Your task to perform on an android device: turn notification dots off Image 0: 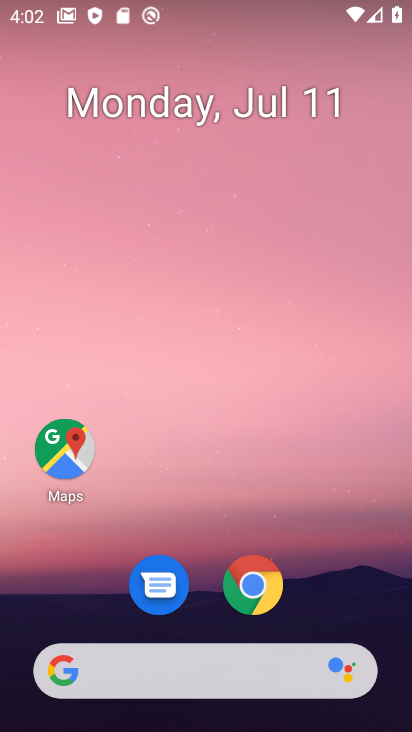
Step 0: drag from (209, 514) to (300, 43)
Your task to perform on an android device: turn notification dots off Image 1: 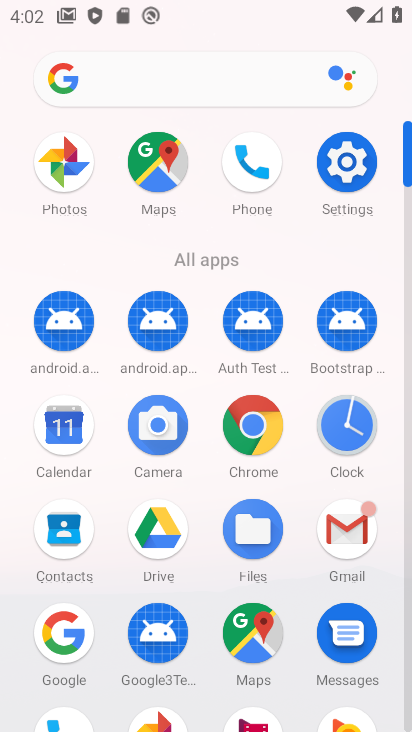
Step 1: click (349, 161)
Your task to perform on an android device: turn notification dots off Image 2: 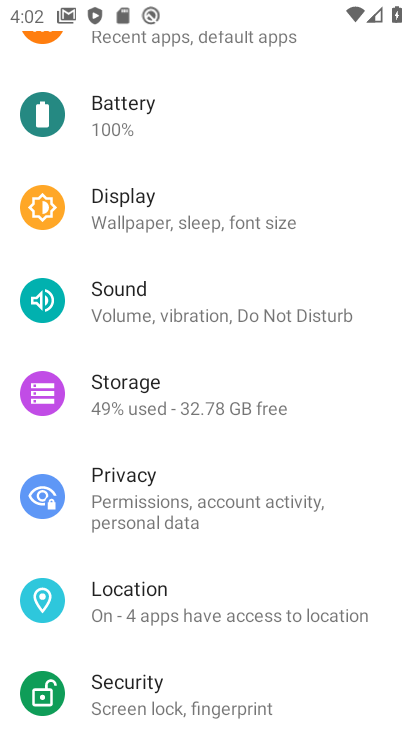
Step 2: drag from (226, 254) to (210, 539)
Your task to perform on an android device: turn notification dots off Image 3: 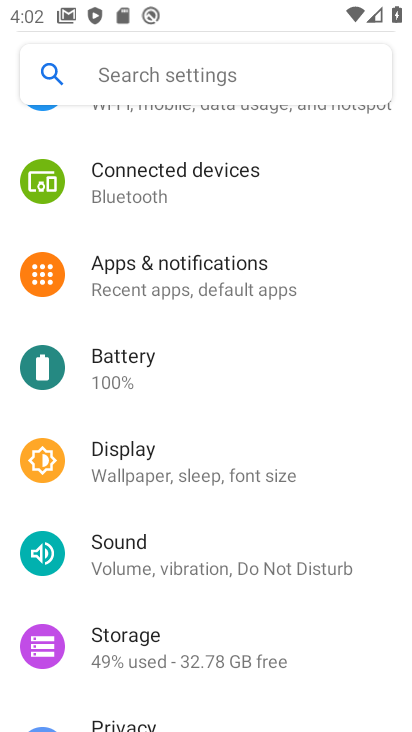
Step 3: click (233, 286)
Your task to perform on an android device: turn notification dots off Image 4: 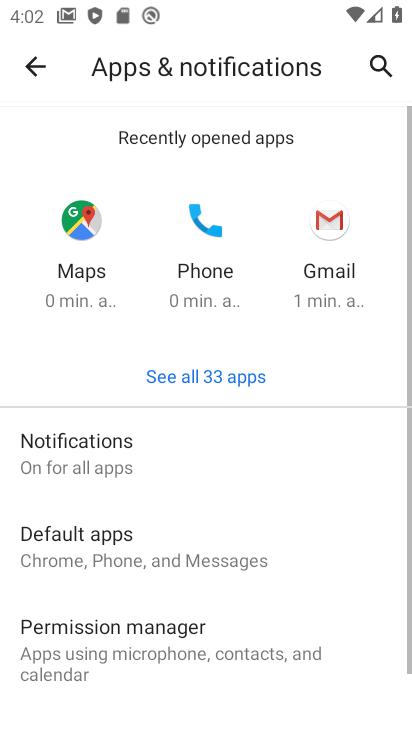
Step 4: click (82, 437)
Your task to perform on an android device: turn notification dots off Image 5: 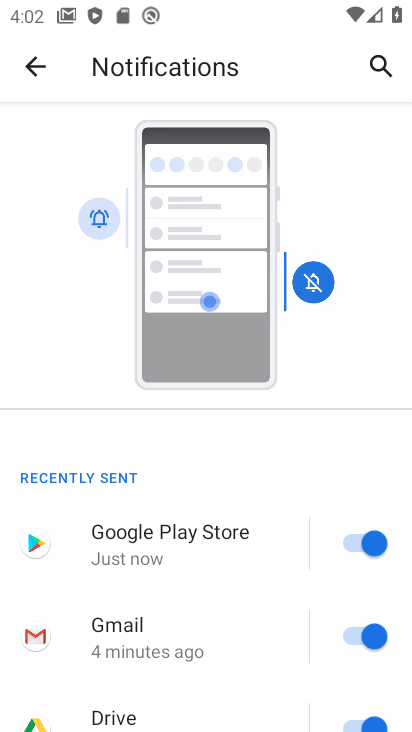
Step 5: drag from (198, 614) to (309, 40)
Your task to perform on an android device: turn notification dots off Image 6: 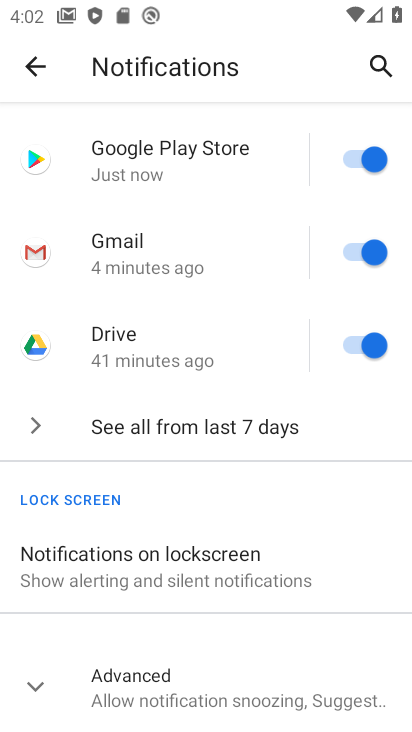
Step 6: click (26, 677)
Your task to perform on an android device: turn notification dots off Image 7: 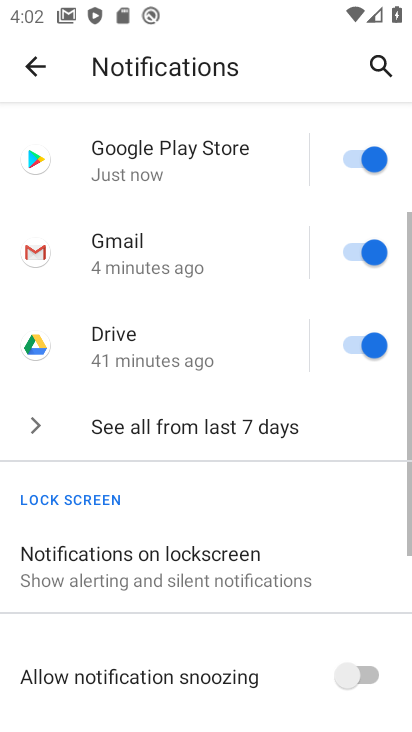
Step 7: drag from (249, 645) to (282, 233)
Your task to perform on an android device: turn notification dots off Image 8: 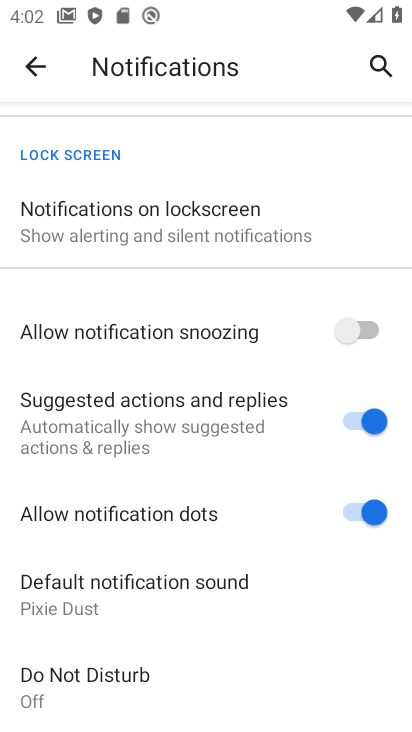
Step 8: click (353, 506)
Your task to perform on an android device: turn notification dots off Image 9: 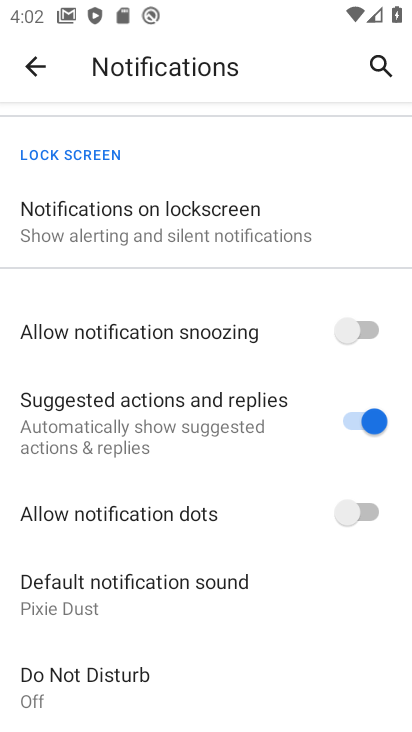
Step 9: task complete